Your task to perform on an android device: Open privacy settings Image 0: 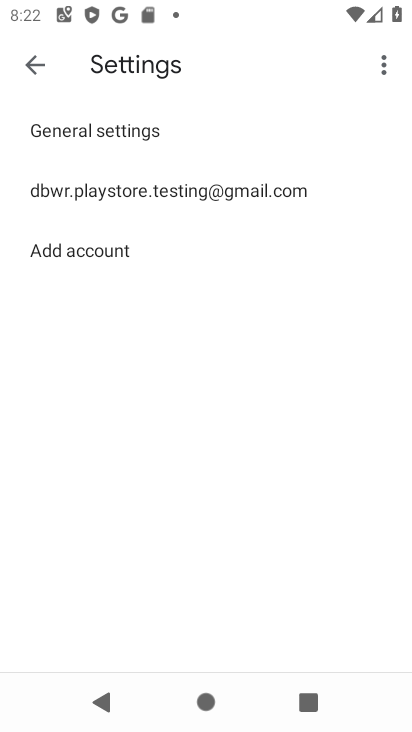
Step 0: press home button
Your task to perform on an android device: Open privacy settings Image 1: 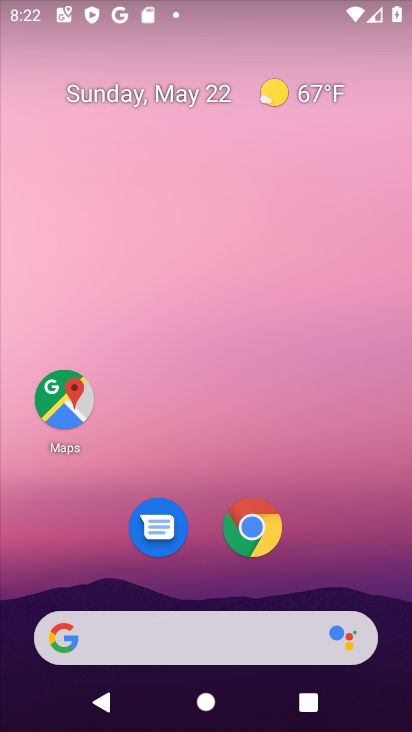
Step 1: drag from (207, 567) to (202, 81)
Your task to perform on an android device: Open privacy settings Image 2: 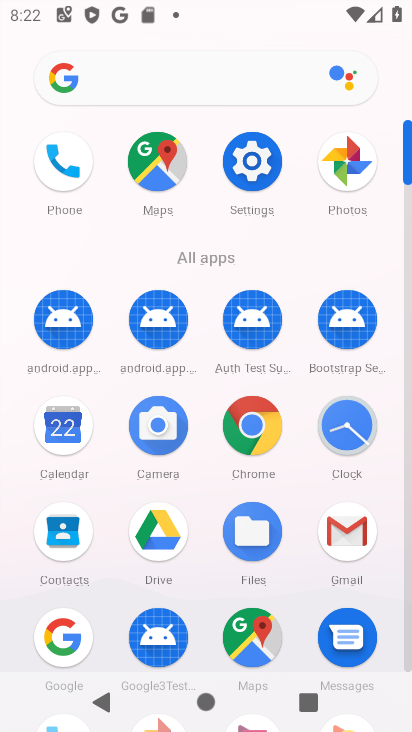
Step 2: click (252, 155)
Your task to perform on an android device: Open privacy settings Image 3: 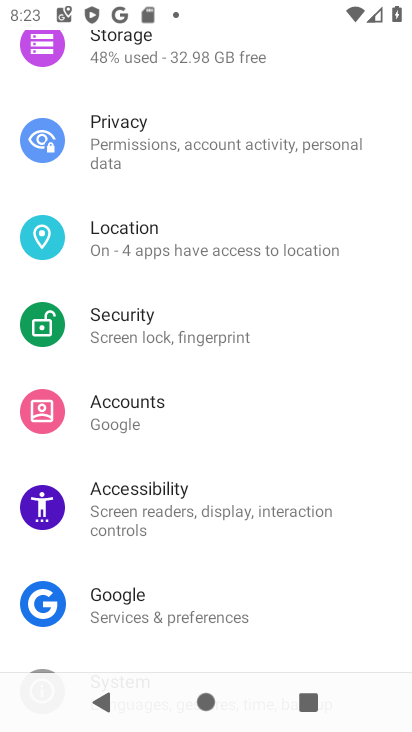
Step 3: click (155, 125)
Your task to perform on an android device: Open privacy settings Image 4: 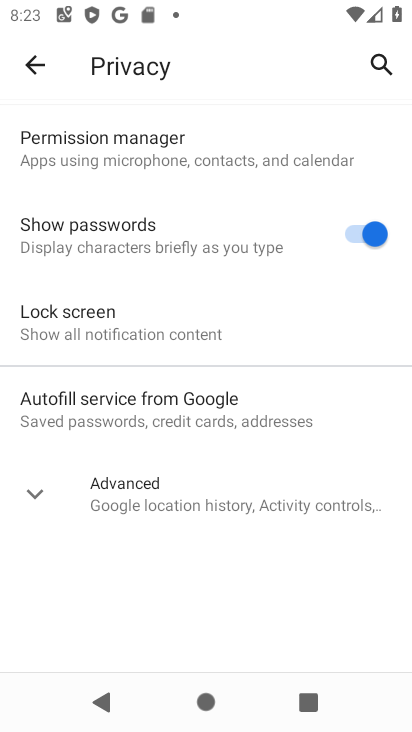
Step 4: click (31, 489)
Your task to perform on an android device: Open privacy settings Image 5: 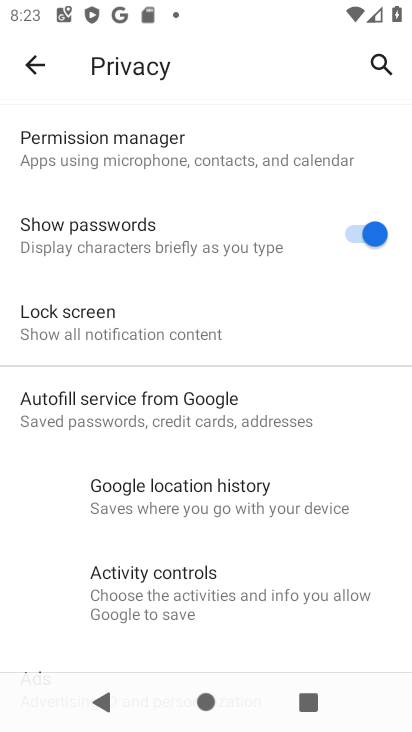
Step 5: task complete